Your task to perform on an android device: delete the emails in spam in the gmail app Image 0: 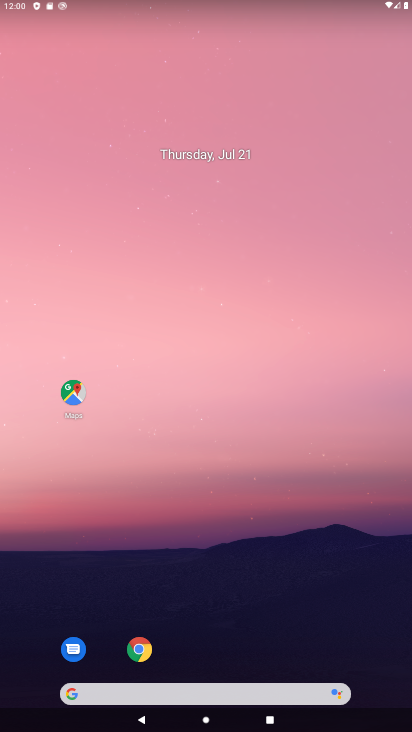
Step 0: drag from (242, 653) to (217, 111)
Your task to perform on an android device: delete the emails in spam in the gmail app Image 1: 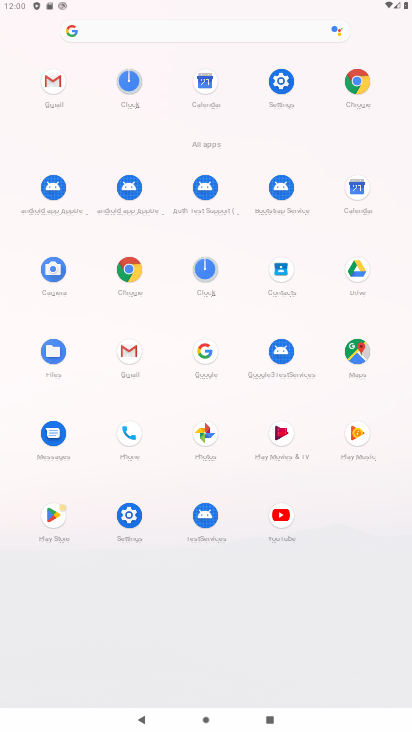
Step 1: click (58, 100)
Your task to perform on an android device: delete the emails in spam in the gmail app Image 2: 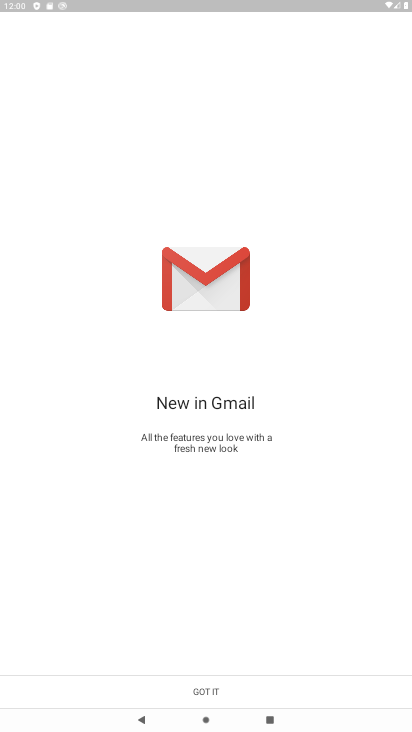
Step 2: task complete